Your task to perform on an android device: turn off airplane mode Image 0: 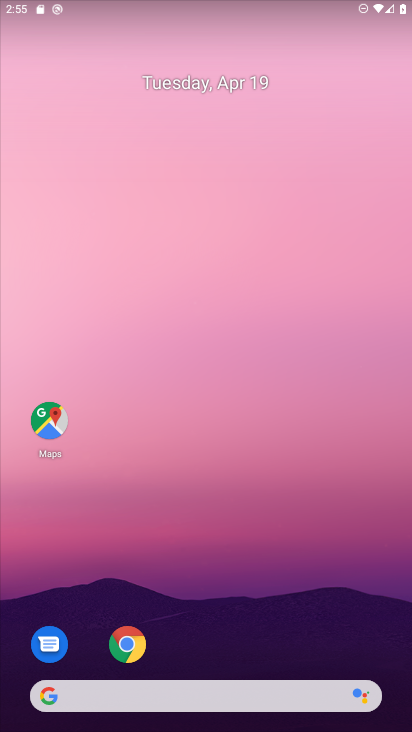
Step 0: drag from (205, 648) to (131, 139)
Your task to perform on an android device: turn off airplane mode Image 1: 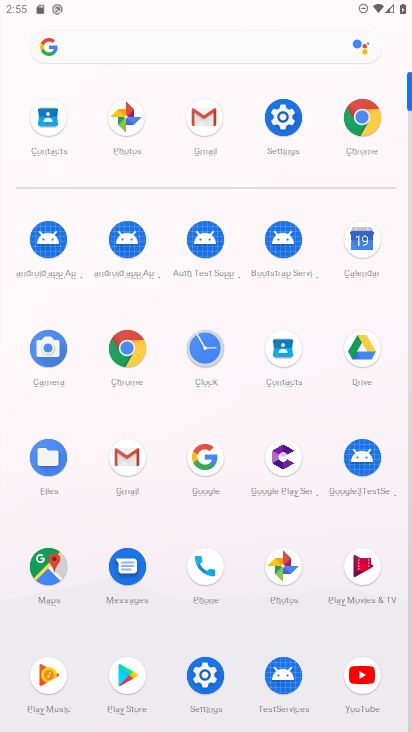
Step 1: click (290, 125)
Your task to perform on an android device: turn off airplane mode Image 2: 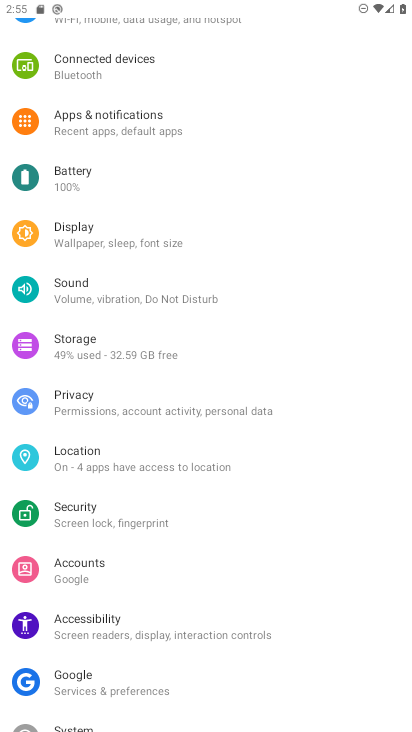
Step 2: drag from (100, 149) to (99, 484)
Your task to perform on an android device: turn off airplane mode Image 3: 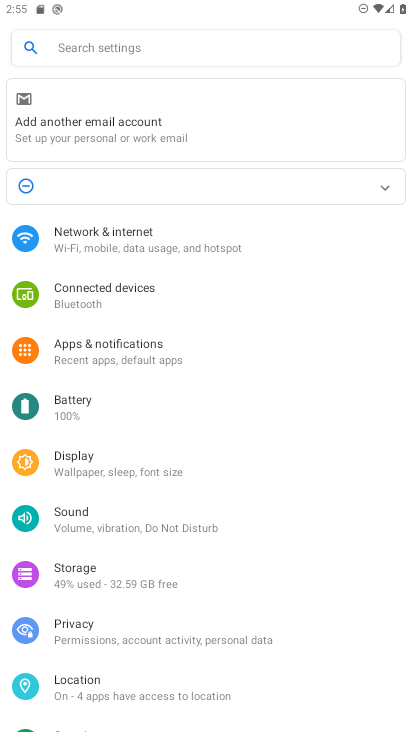
Step 3: click (137, 254)
Your task to perform on an android device: turn off airplane mode Image 4: 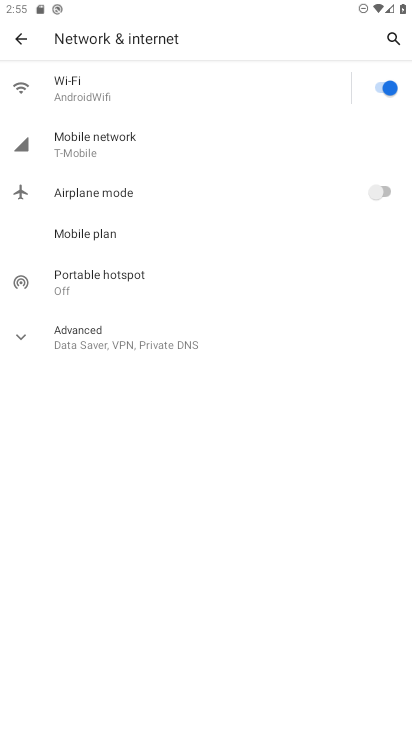
Step 4: task complete